Your task to perform on an android device: empty trash in the gmail app Image 0: 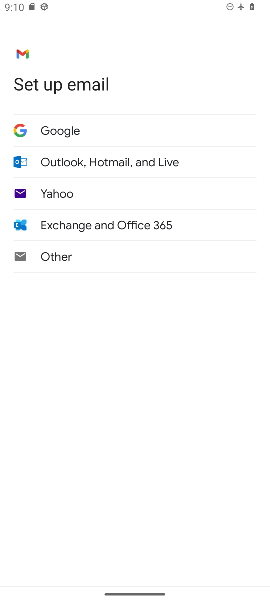
Step 0: press home button
Your task to perform on an android device: empty trash in the gmail app Image 1: 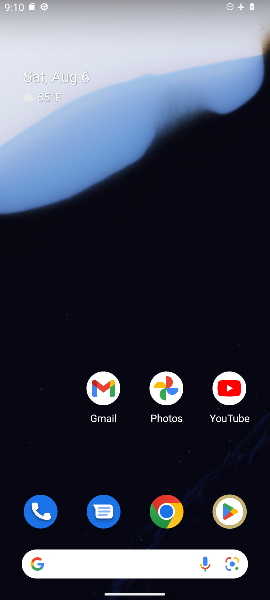
Step 1: drag from (95, 420) to (64, 98)
Your task to perform on an android device: empty trash in the gmail app Image 2: 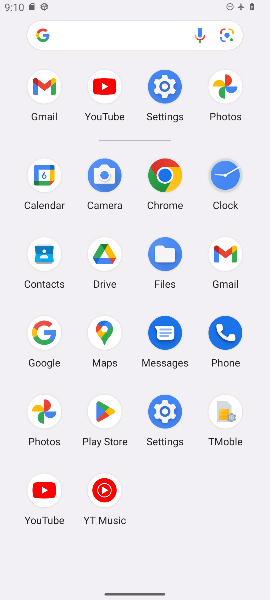
Step 2: click (54, 334)
Your task to perform on an android device: empty trash in the gmail app Image 3: 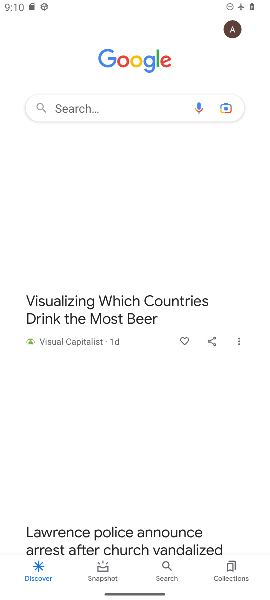
Step 3: press home button
Your task to perform on an android device: empty trash in the gmail app Image 4: 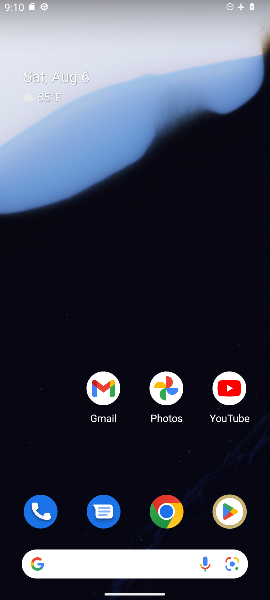
Step 4: click (115, 392)
Your task to perform on an android device: empty trash in the gmail app Image 5: 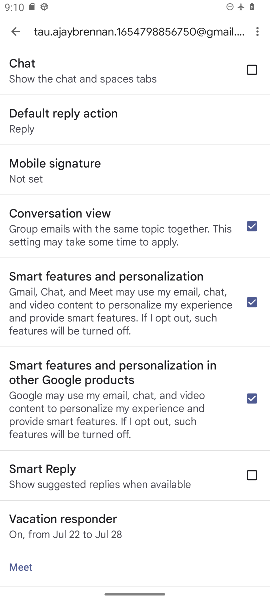
Step 5: click (10, 39)
Your task to perform on an android device: empty trash in the gmail app Image 6: 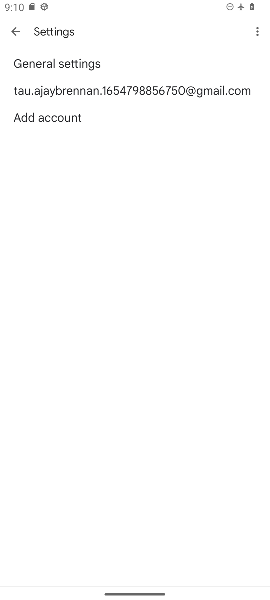
Step 6: click (18, 29)
Your task to perform on an android device: empty trash in the gmail app Image 7: 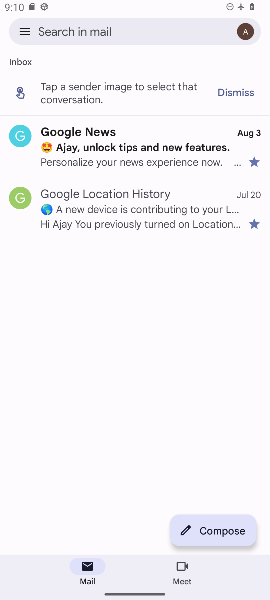
Step 7: click (18, 29)
Your task to perform on an android device: empty trash in the gmail app Image 8: 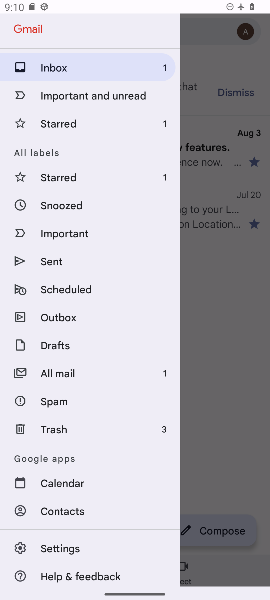
Step 8: click (38, 424)
Your task to perform on an android device: empty trash in the gmail app Image 9: 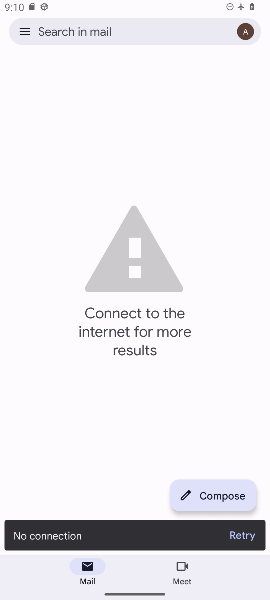
Step 9: task complete